Your task to perform on an android device: Open the Play Movies app and select the watchlist tab. Image 0: 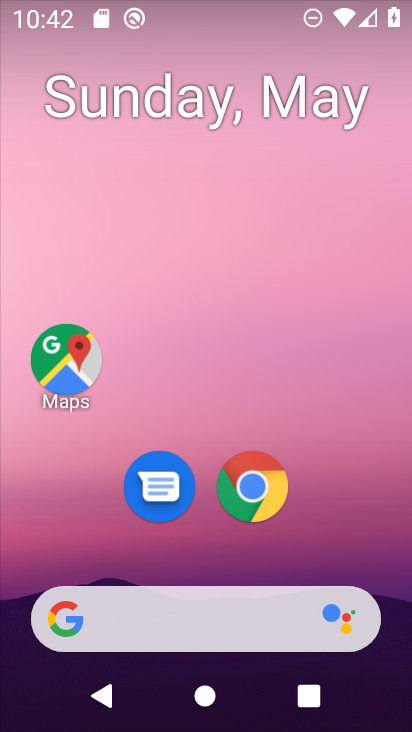
Step 0: drag from (356, 559) to (255, 62)
Your task to perform on an android device: Open the Play Movies app and select the watchlist tab. Image 1: 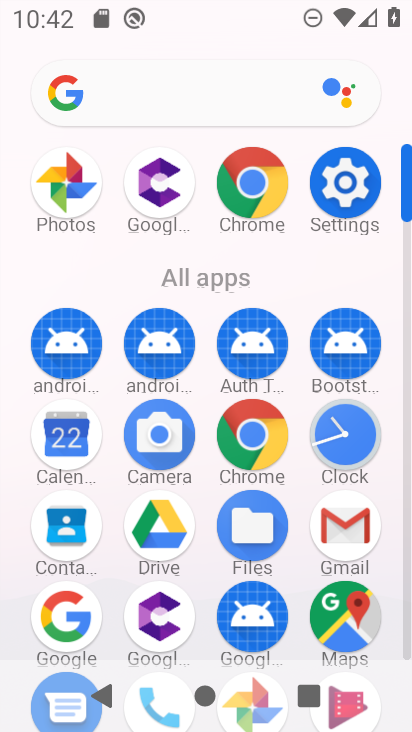
Step 1: click (405, 653)
Your task to perform on an android device: Open the Play Movies app and select the watchlist tab. Image 2: 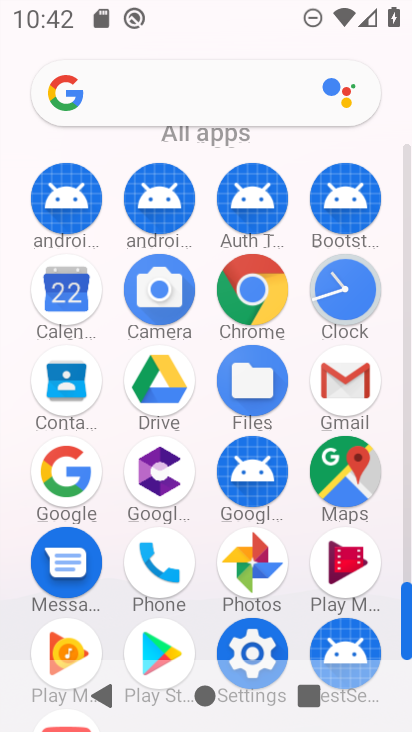
Step 2: click (357, 579)
Your task to perform on an android device: Open the Play Movies app and select the watchlist tab. Image 3: 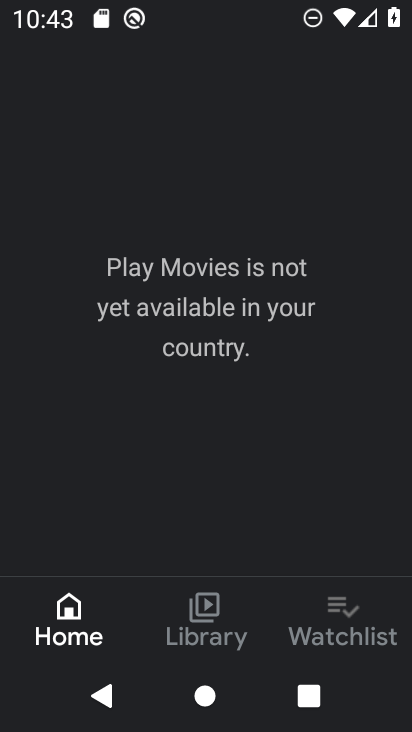
Step 3: click (342, 620)
Your task to perform on an android device: Open the Play Movies app and select the watchlist tab. Image 4: 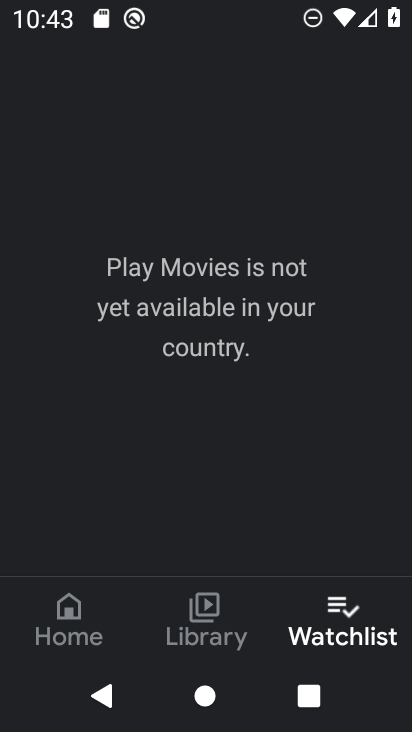
Step 4: task complete